Your task to perform on an android device: What's the weather going to be tomorrow? Image 0: 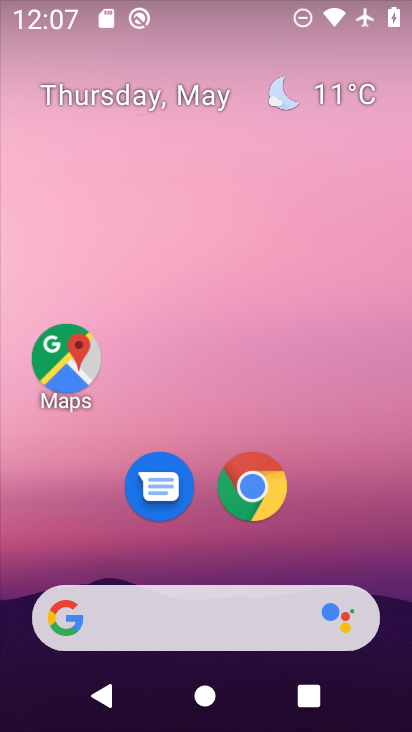
Step 0: drag from (351, 549) to (274, 7)
Your task to perform on an android device: What's the weather going to be tomorrow? Image 1: 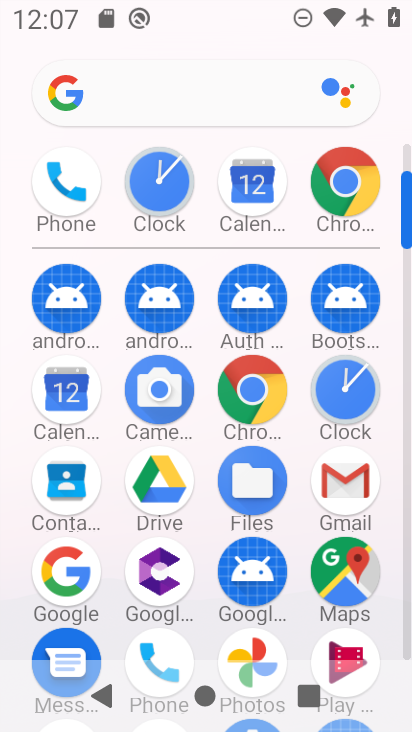
Step 1: drag from (7, 577) to (13, 311)
Your task to perform on an android device: What's the weather going to be tomorrow? Image 2: 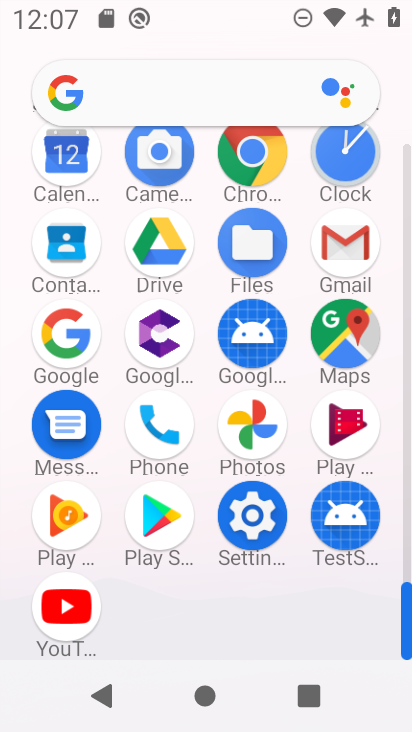
Step 2: drag from (16, 450) to (33, 195)
Your task to perform on an android device: What's the weather going to be tomorrow? Image 3: 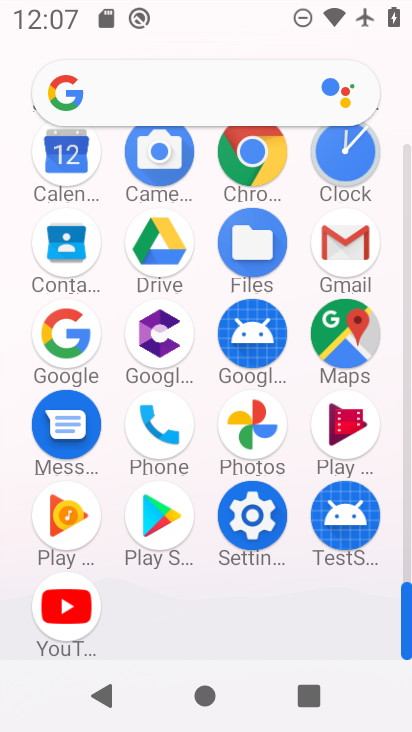
Step 3: drag from (0, 546) to (13, 272)
Your task to perform on an android device: What's the weather going to be tomorrow? Image 4: 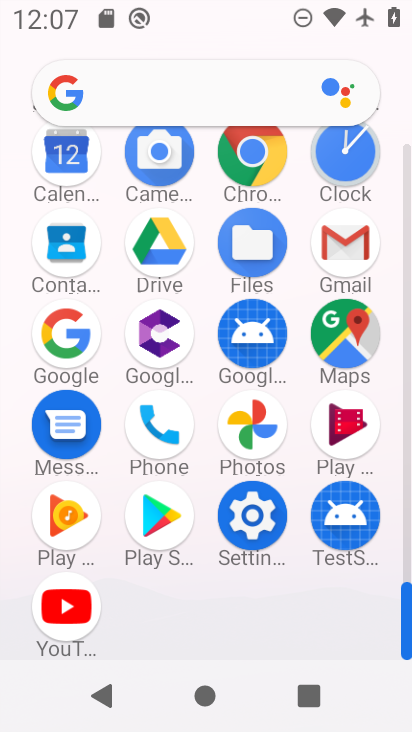
Step 4: drag from (8, 230) to (17, 490)
Your task to perform on an android device: What's the weather going to be tomorrow? Image 5: 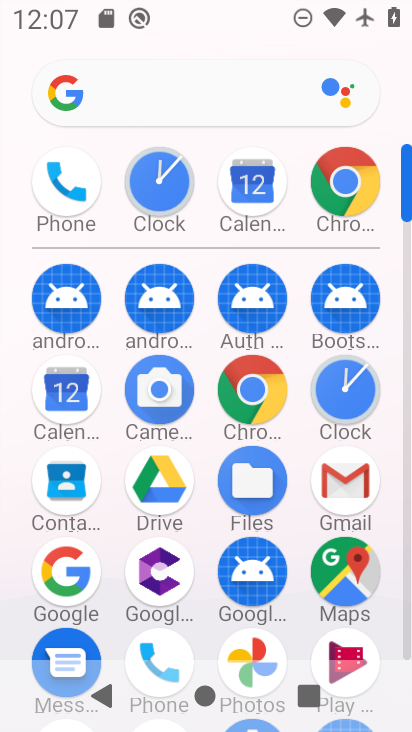
Step 5: click (256, 389)
Your task to perform on an android device: What's the weather going to be tomorrow? Image 6: 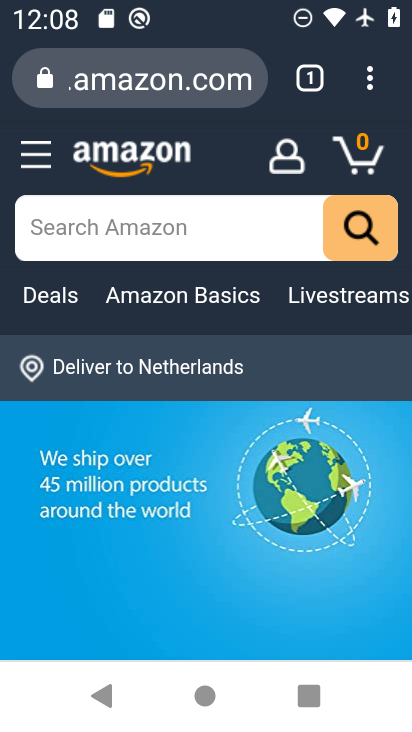
Step 6: click (167, 85)
Your task to perform on an android device: What's the weather going to be tomorrow? Image 7: 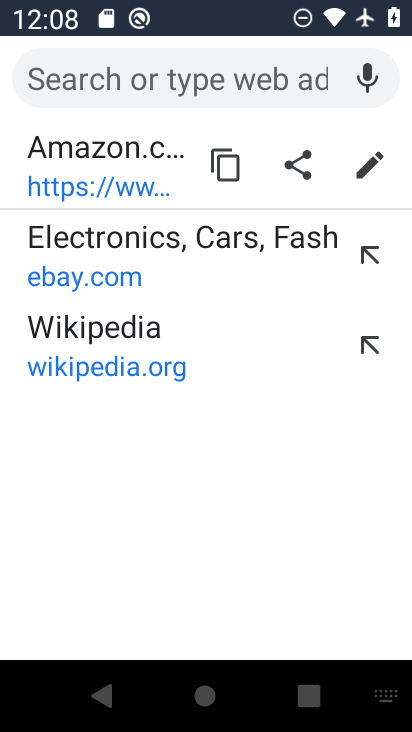
Step 7: type "What's the weather going to be tomorrow?"
Your task to perform on an android device: What's the weather going to be tomorrow? Image 8: 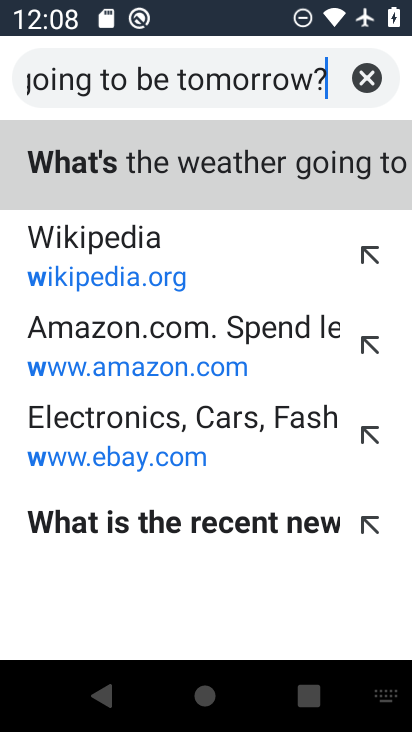
Step 8: type ""
Your task to perform on an android device: What's the weather going to be tomorrow? Image 9: 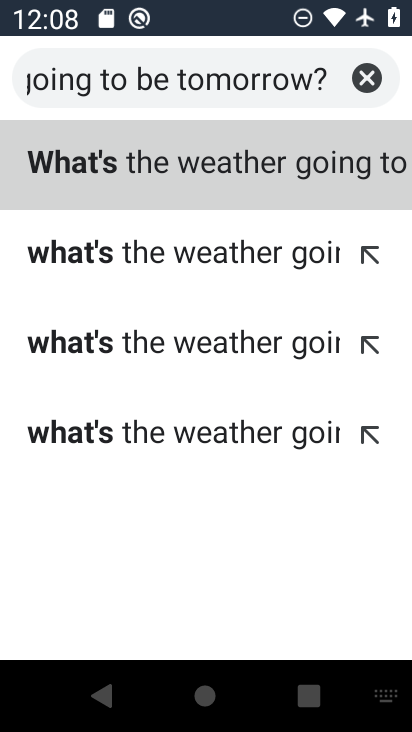
Step 9: click (207, 158)
Your task to perform on an android device: What's the weather going to be tomorrow? Image 10: 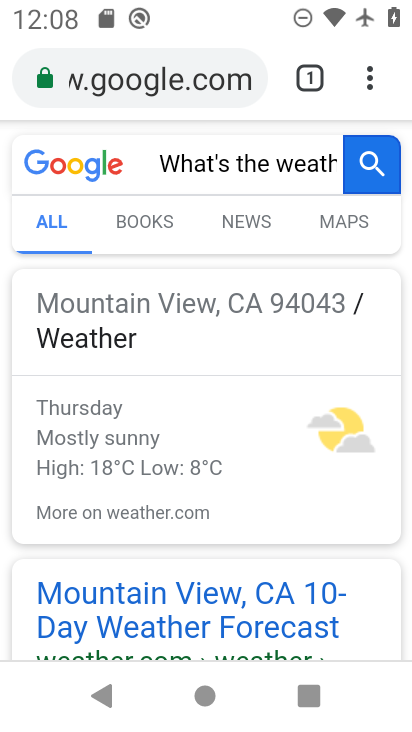
Step 10: task complete